Your task to perform on an android device: open wifi settings Image 0: 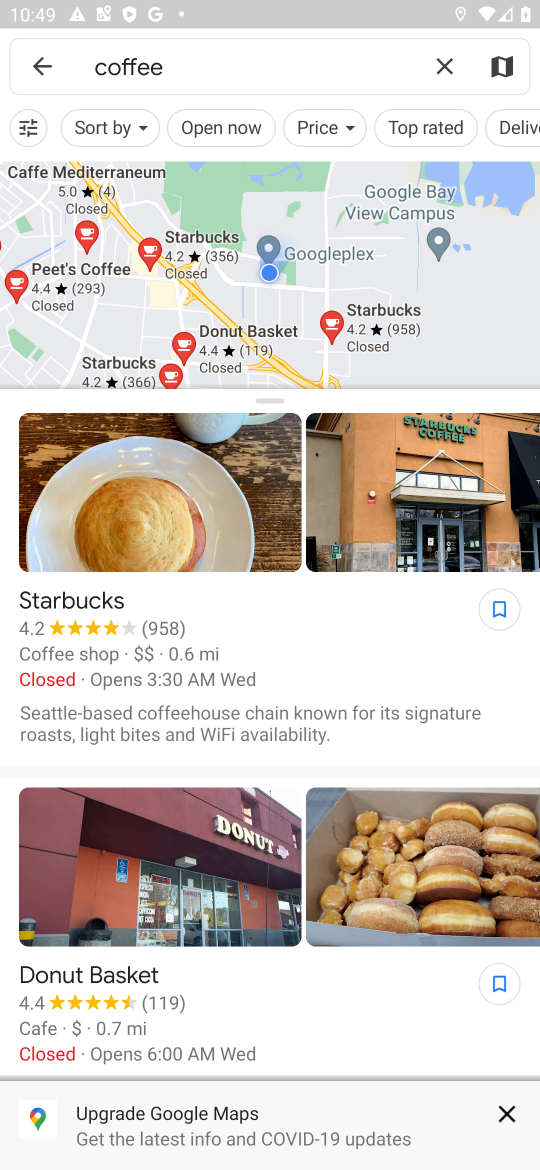
Step 0: press home button
Your task to perform on an android device: open wifi settings Image 1: 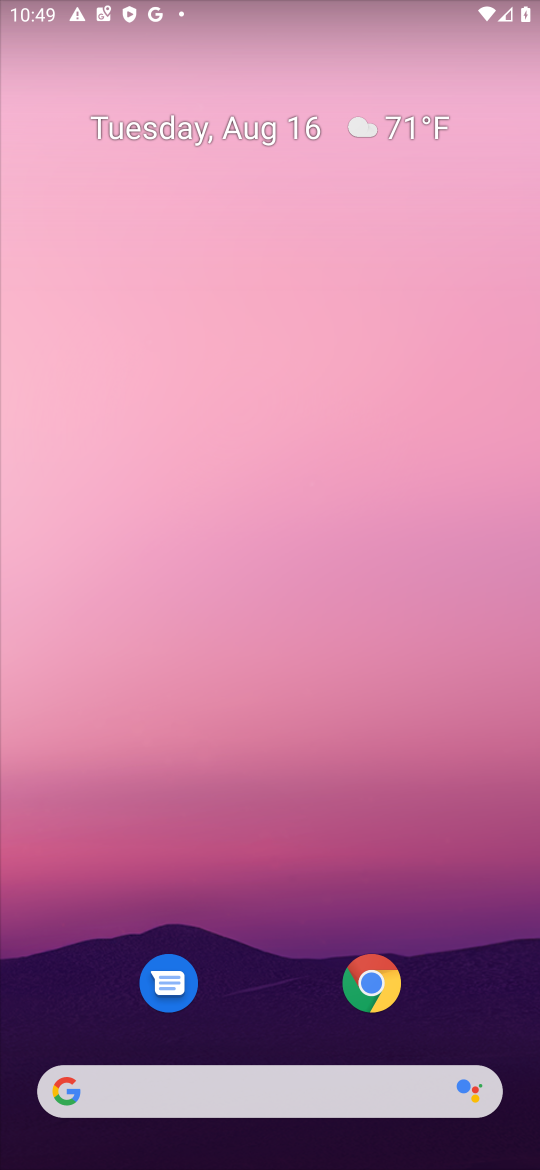
Step 1: drag from (338, 942) to (357, 57)
Your task to perform on an android device: open wifi settings Image 2: 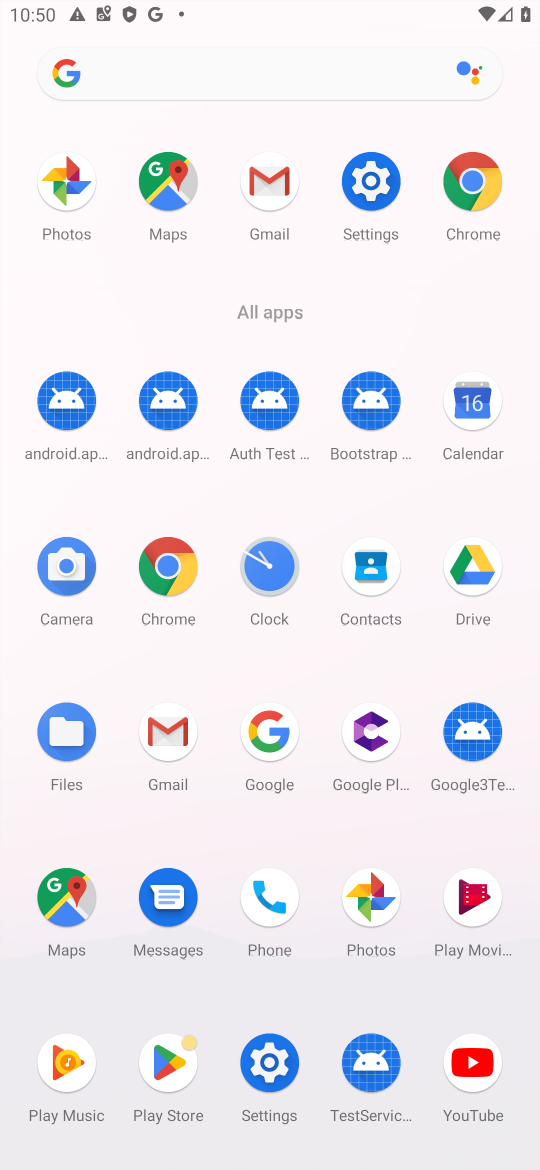
Step 2: click (341, 172)
Your task to perform on an android device: open wifi settings Image 3: 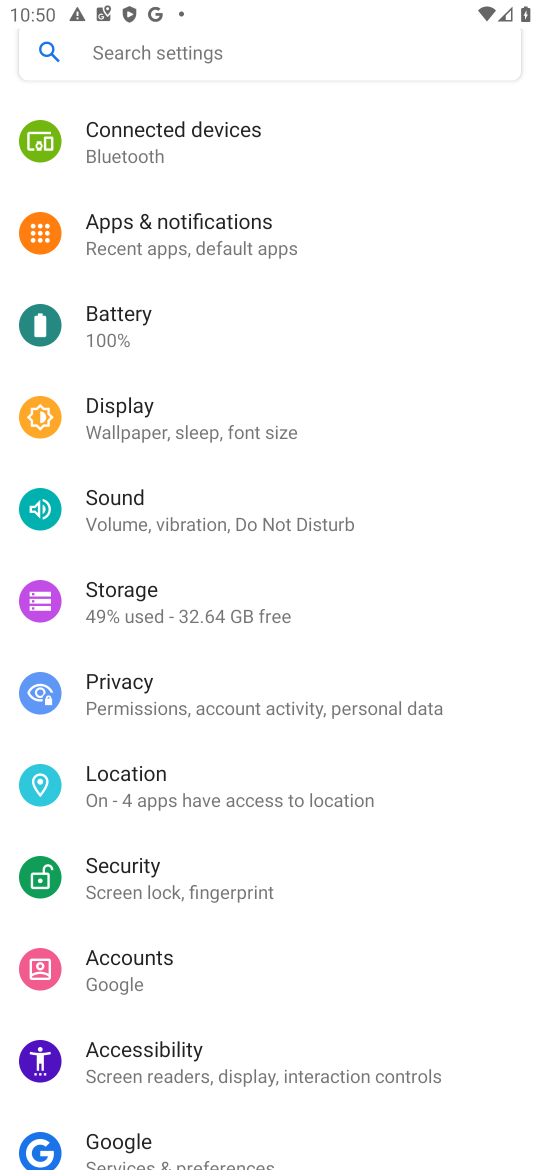
Step 3: drag from (248, 166) to (319, 776)
Your task to perform on an android device: open wifi settings Image 4: 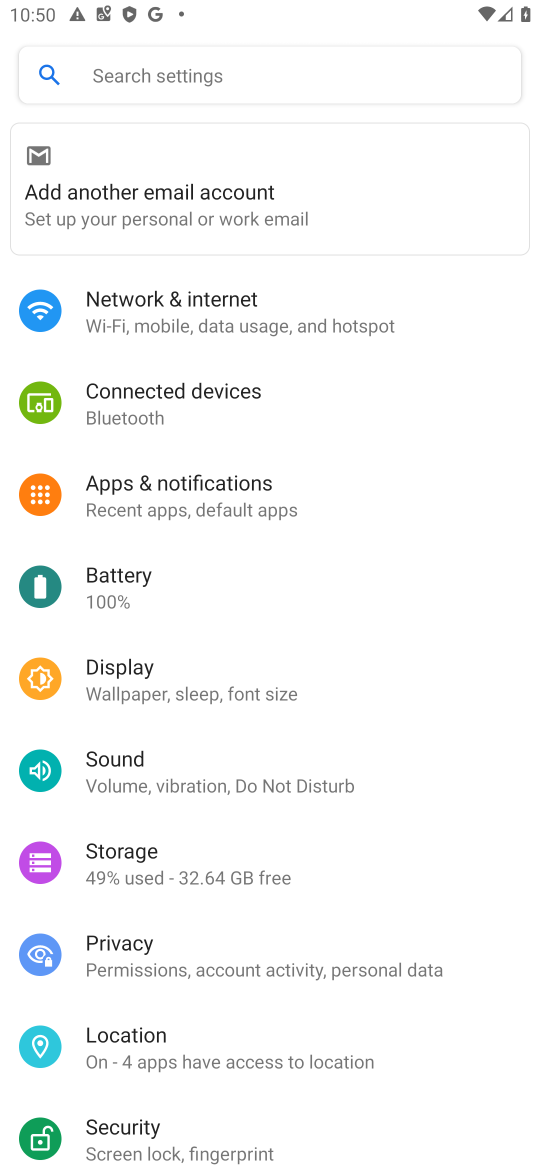
Step 4: click (174, 328)
Your task to perform on an android device: open wifi settings Image 5: 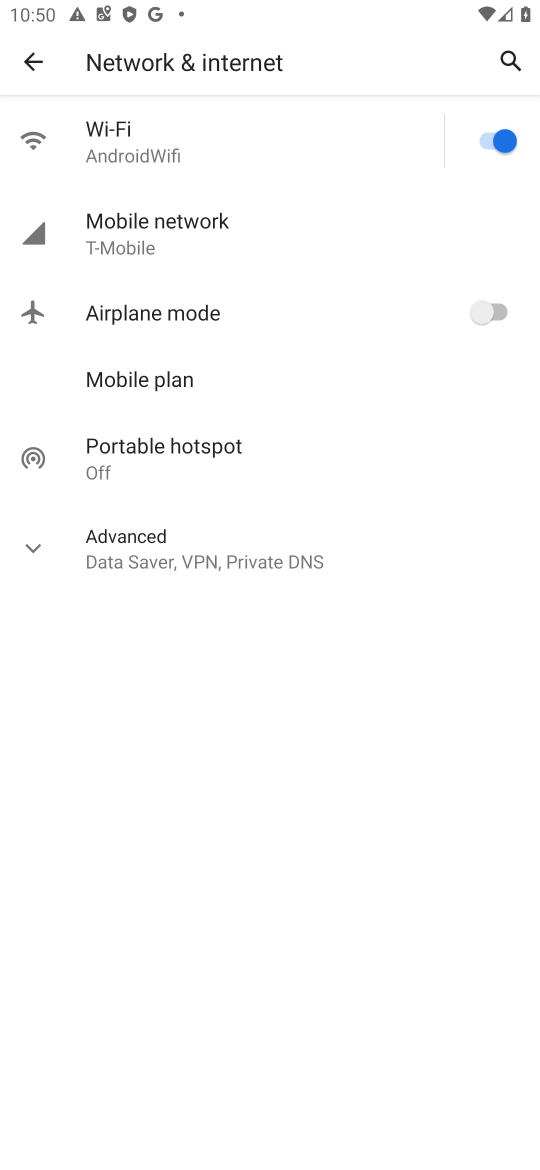
Step 5: click (154, 144)
Your task to perform on an android device: open wifi settings Image 6: 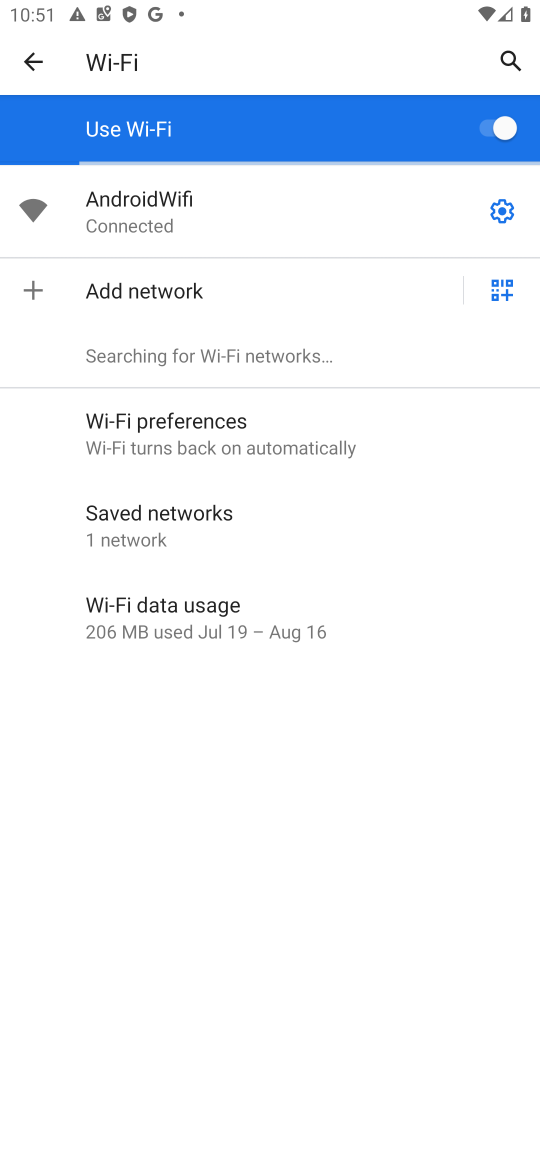
Step 6: task complete